Your task to perform on an android device: Open ESPN.com Image 0: 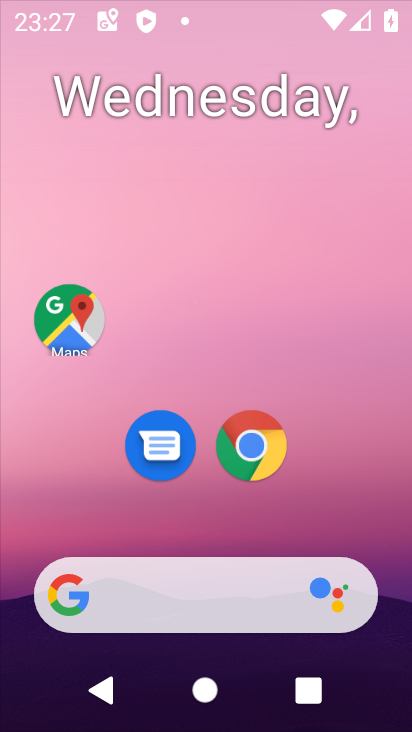
Step 0: click (247, 443)
Your task to perform on an android device: Open ESPN.com Image 1: 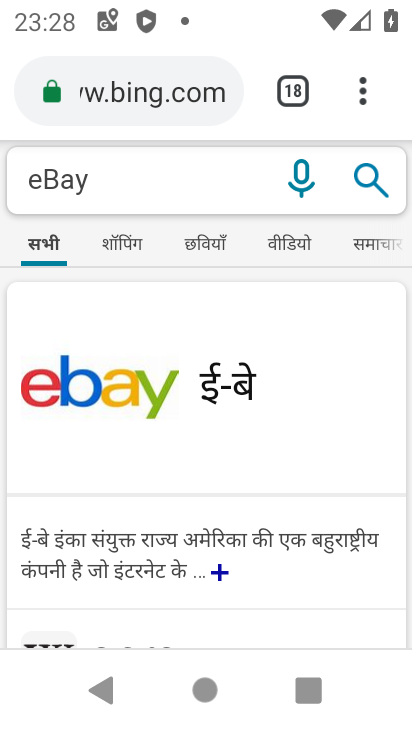
Step 1: click (354, 89)
Your task to perform on an android device: Open ESPN.com Image 2: 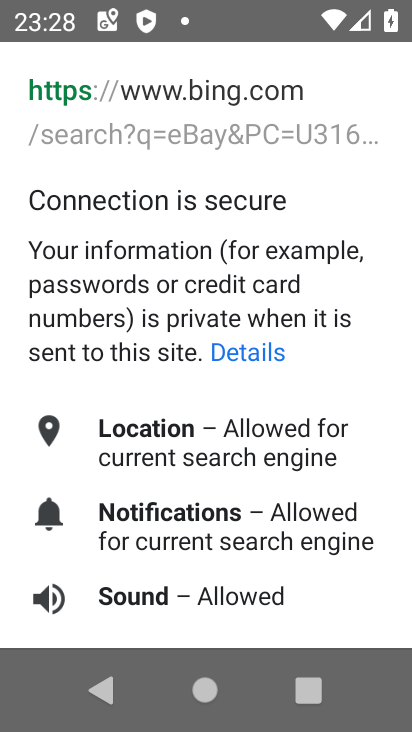
Step 2: press back button
Your task to perform on an android device: Open ESPN.com Image 3: 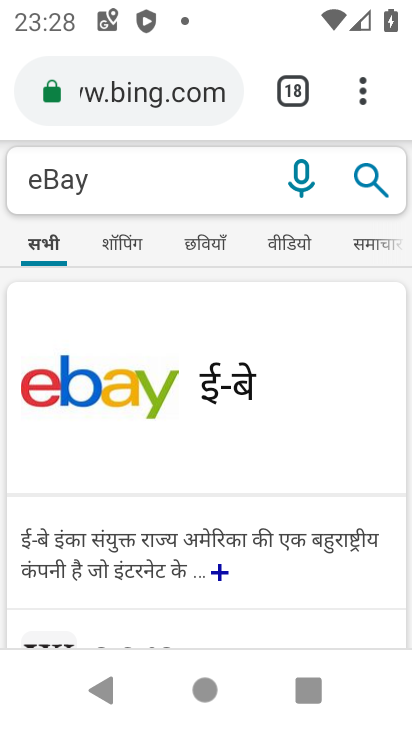
Step 3: click (374, 94)
Your task to perform on an android device: Open ESPN.com Image 4: 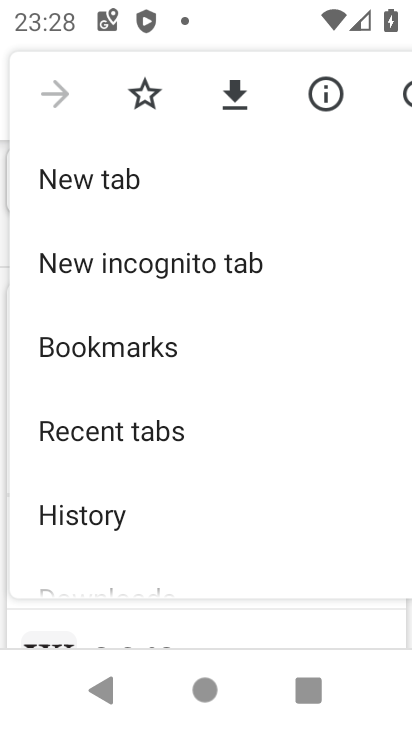
Step 4: click (116, 186)
Your task to perform on an android device: Open ESPN.com Image 5: 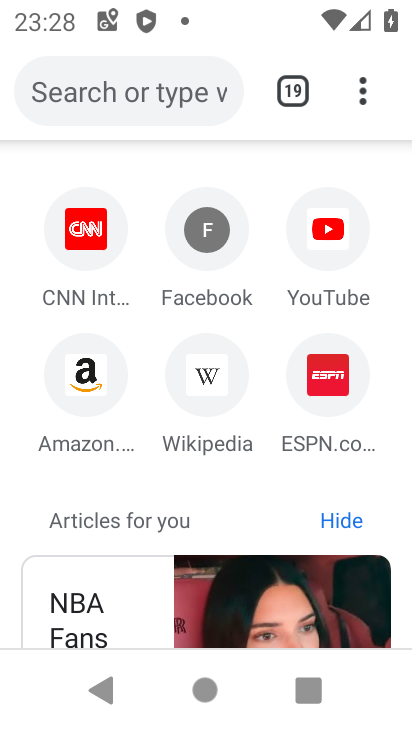
Step 5: click (327, 368)
Your task to perform on an android device: Open ESPN.com Image 6: 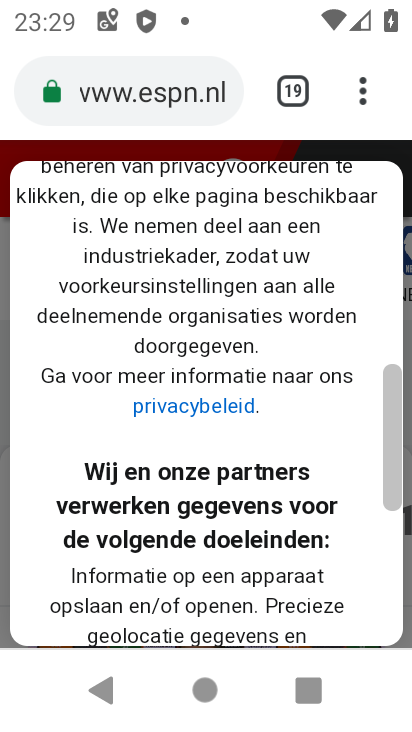
Step 6: task complete